Your task to perform on an android device: uninstall "Microsoft Authenticator" Image 0: 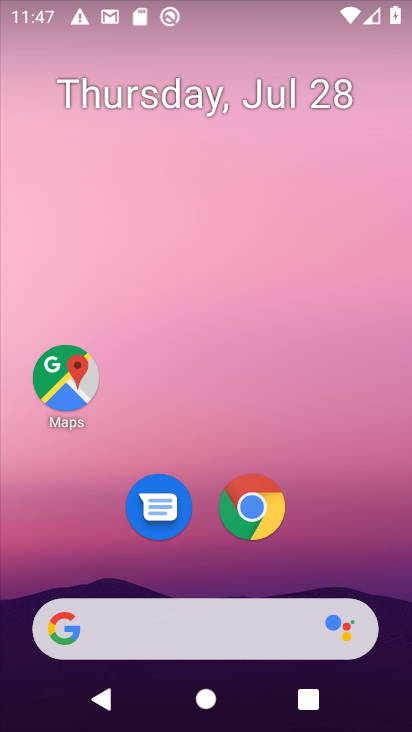
Step 0: drag from (208, 594) to (184, 1)
Your task to perform on an android device: uninstall "Microsoft Authenticator" Image 1: 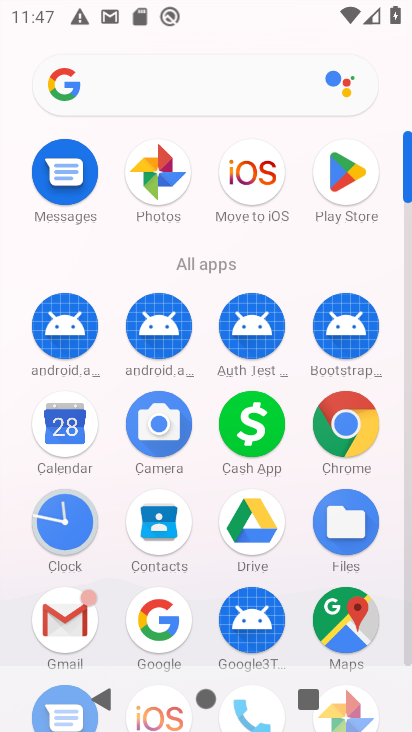
Step 1: click (338, 193)
Your task to perform on an android device: uninstall "Microsoft Authenticator" Image 2: 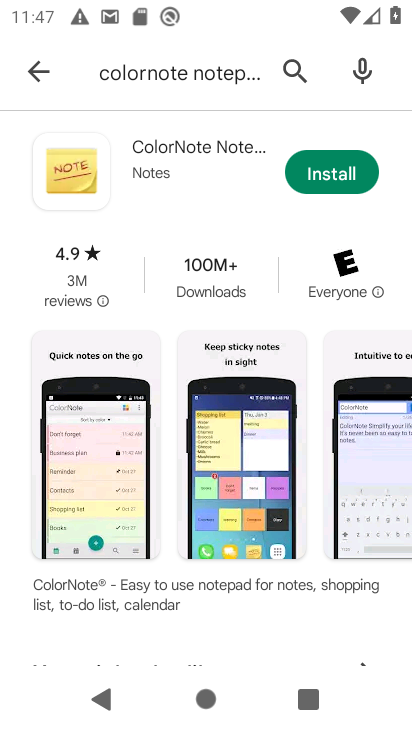
Step 2: click (165, 85)
Your task to perform on an android device: uninstall "Microsoft Authenticator" Image 3: 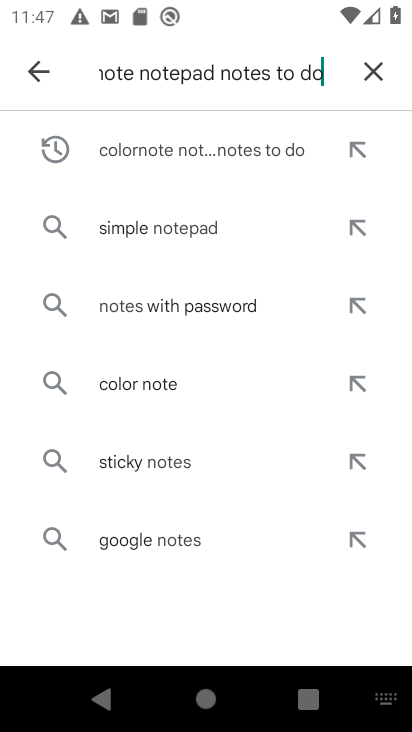
Step 3: click (364, 69)
Your task to perform on an android device: uninstall "Microsoft Authenticator" Image 4: 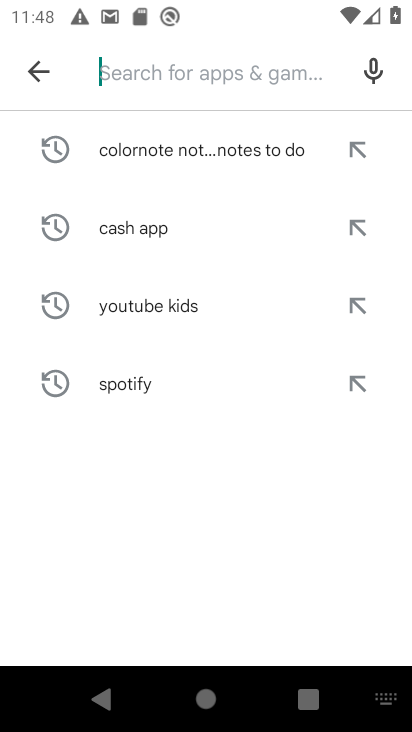
Step 4: type "microsoft Authenticator"
Your task to perform on an android device: uninstall "Microsoft Authenticator" Image 5: 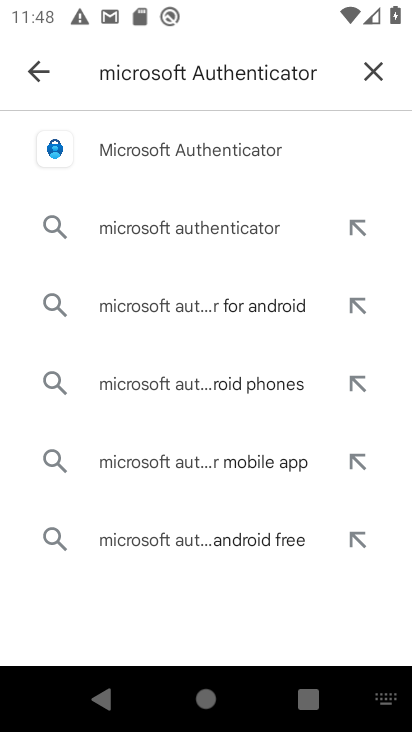
Step 5: click (214, 156)
Your task to perform on an android device: uninstall "Microsoft Authenticator" Image 6: 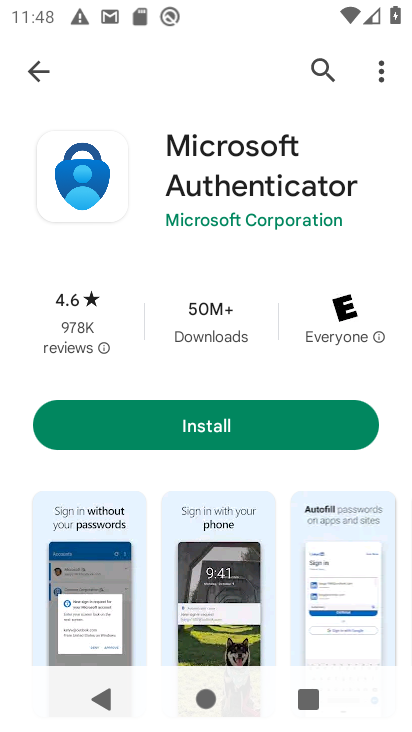
Step 6: task complete